Your task to perform on an android device: Is it going to rain today? Image 0: 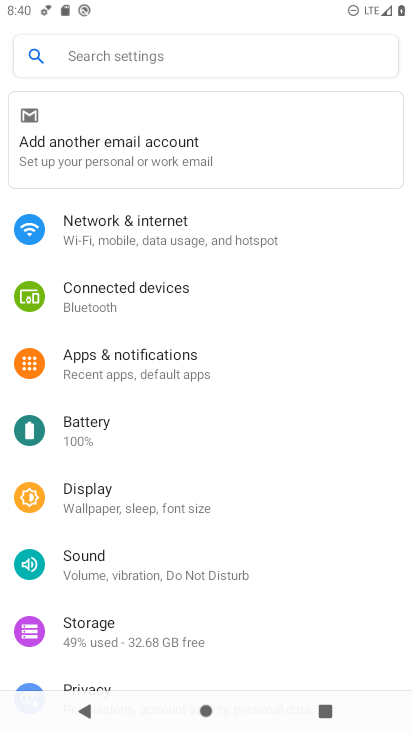
Step 0: press home button
Your task to perform on an android device: Is it going to rain today? Image 1: 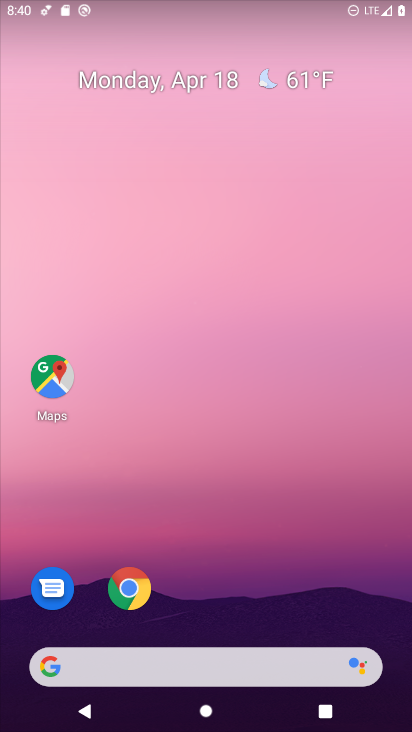
Step 1: click (291, 82)
Your task to perform on an android device: Is it going to rain today? Image 2: 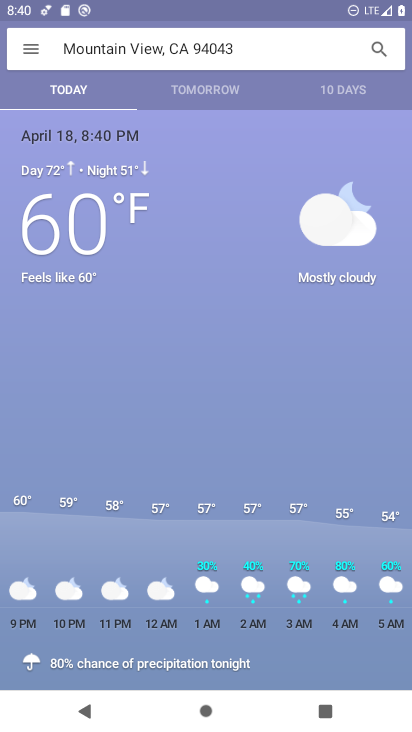
Step 2: task complete